Your task to perform on an android device: check battery use Image 0: 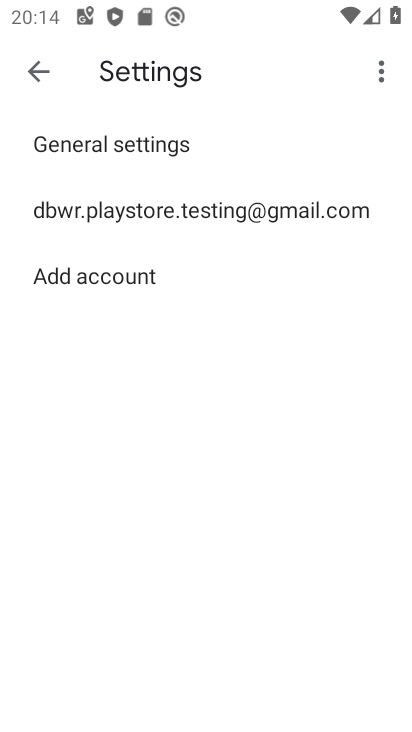
Step 0: press home button
Your task to perform on an android device: check battery use Image 1: 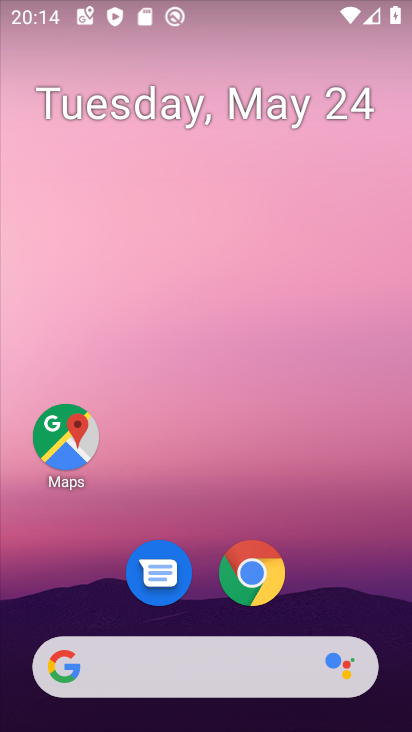
Step 1: drag from (298, 612) to (354, 2)
Your task to perform on an android device: check battery use Image 2: 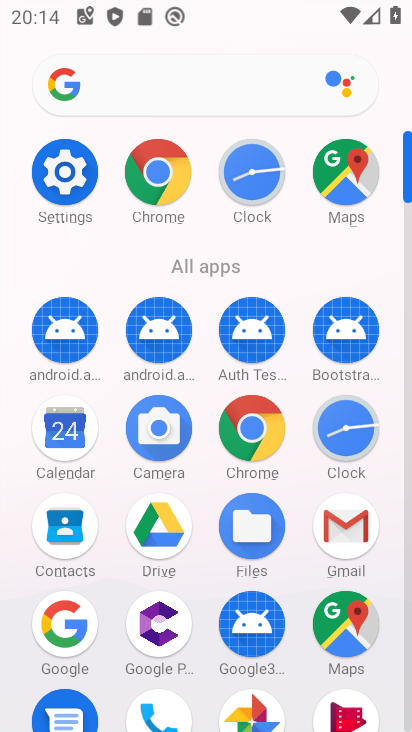
Step 2: click (55, 169)
Your task to perform on an android device: check battery use Image 3: 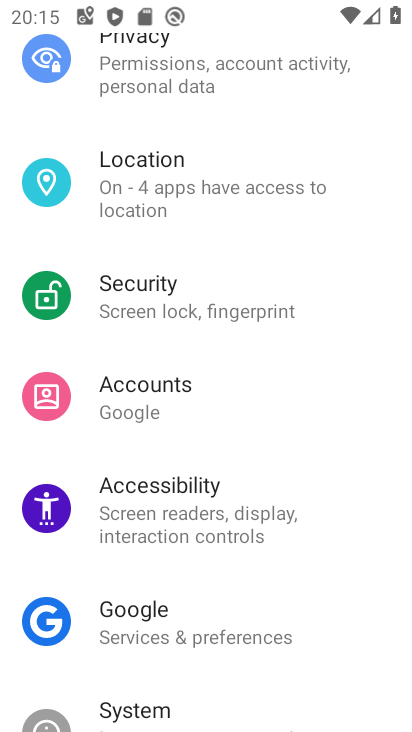
Step 3: drag from (197, 230) to (262, 557)
Your task to perform on an android device: check battery use Image 4: 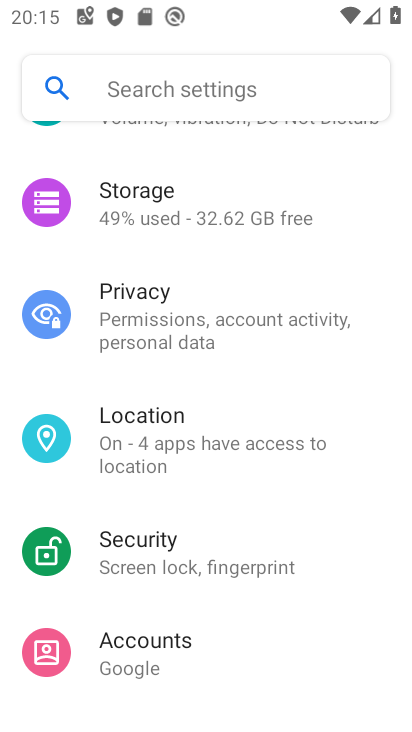
Step 4: drag from (228, 315) to (239, 658)
Your task to perform on an android device: check battery use Image 5: 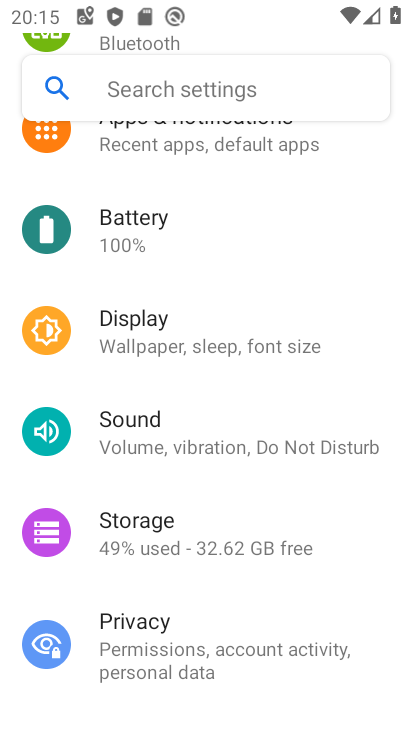
Step 5: click (149, 231)
Your task to perform on an android device: check battery use Image 6: 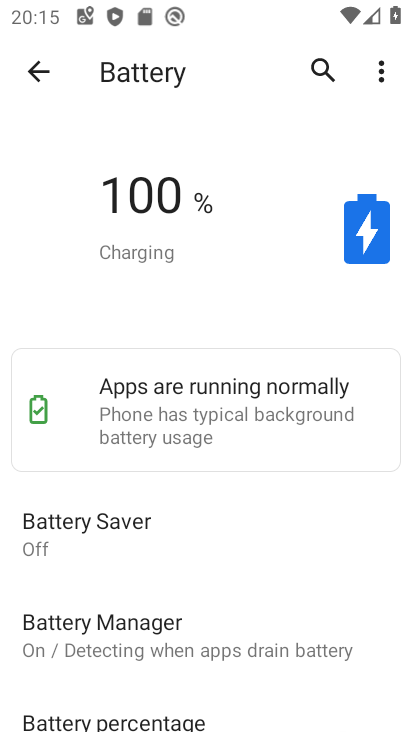
Step 6: click (374, 74)
Your task to perform on an android device: check battery use Image 7: 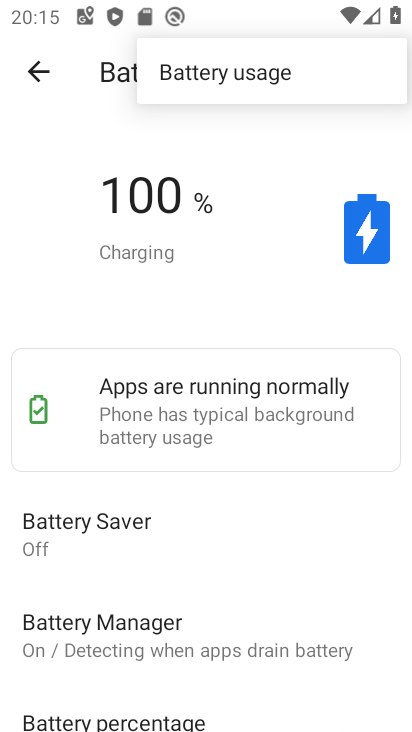
Step 7: click (302, 70)
Your task to perform on an android device: check battery use Image 8: 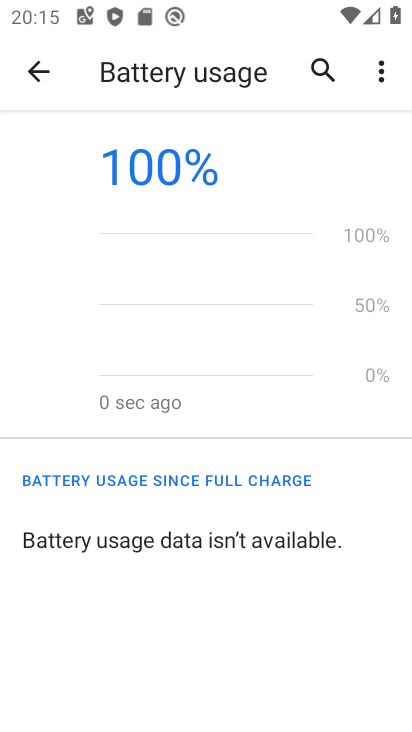
Step 8: task complete